Your task to perform on an android device: Open location settings Image 0: 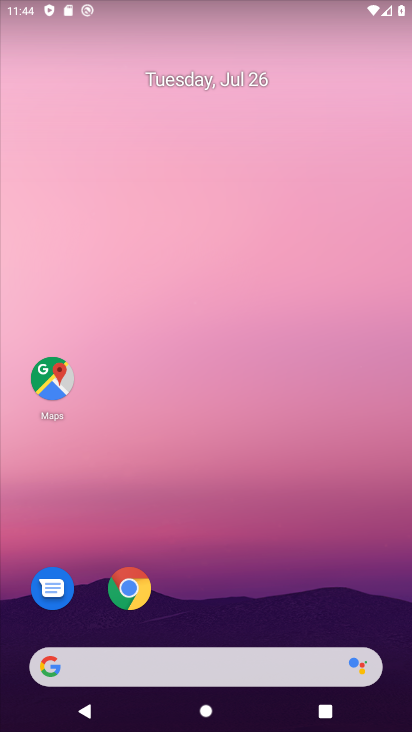
Step 0: drag from (51, 630) to (227, 242)
Your task to perform on an android device: Open location settings Image 1: 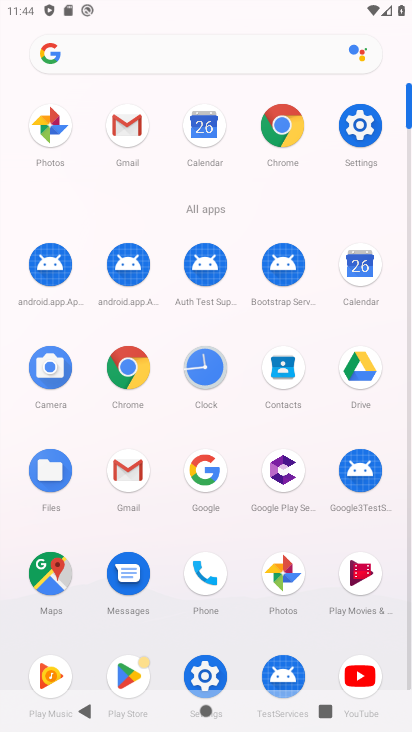
Step 1: click (197, 668)
Your task to perform on an android device: Open location settings Image 2: 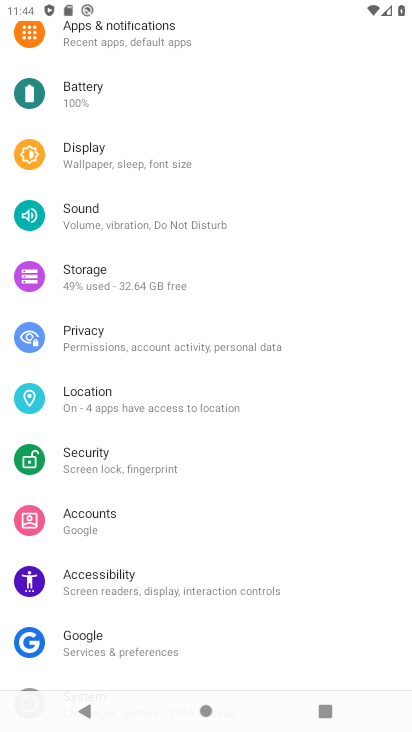
Step 2: click (102, 395)
Your task to perform on an android device: Open location settings Image 3: 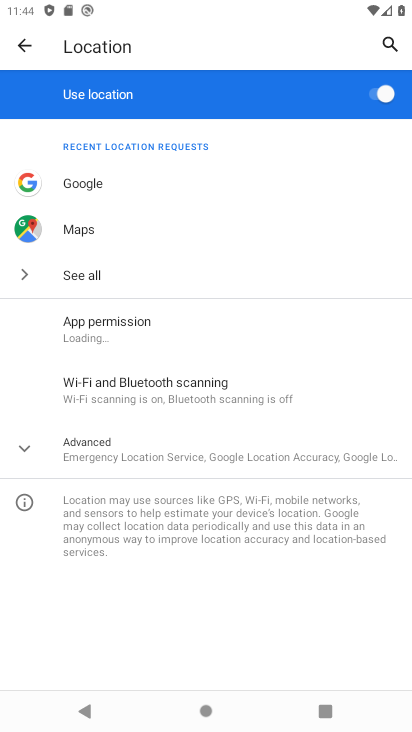
Step 3: task complete